Your task to perform on an android device: Find coffee shops on Maps Image 0: 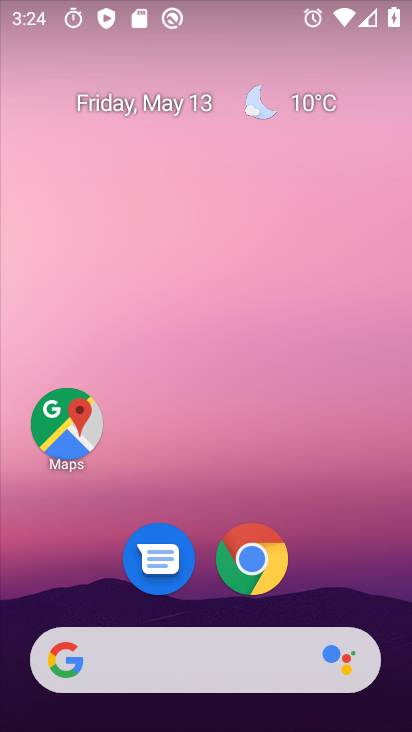
Step 0: click (59, 421)
Your task to perform on an android device: Find coffee shops on Maps Image 1: 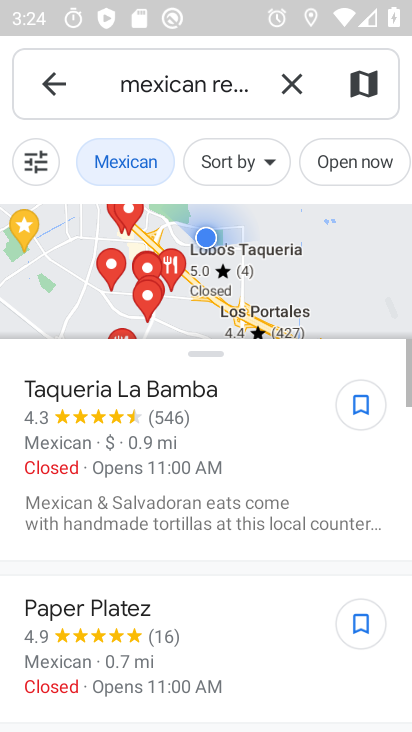
Step 1: click (290, 87)
Your task to perform on an android device: Find coffee shops on Maps Image 2: 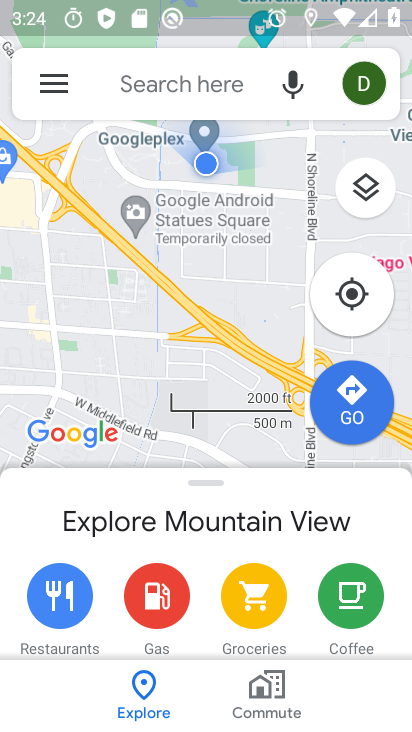
Step 2: click (172, 78)
Your task to perform on an android device: Find coffee shops on Maps Image 3: 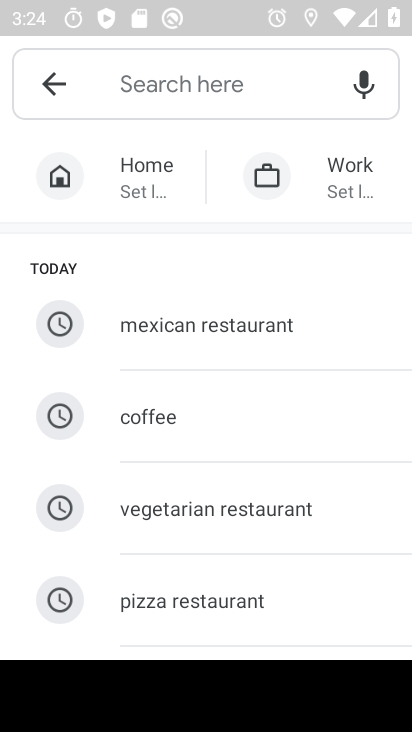
Step 3: type "coffee shops"
Your task to perform on an android device: Find coffee shops on Maps Image 4: 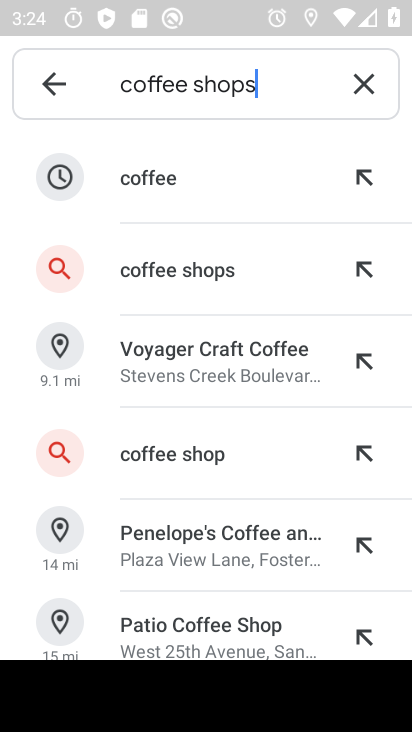
Step 4: click (229, 283)
Your task to perform on an android device: Find coffee shops on Maps Image 5: 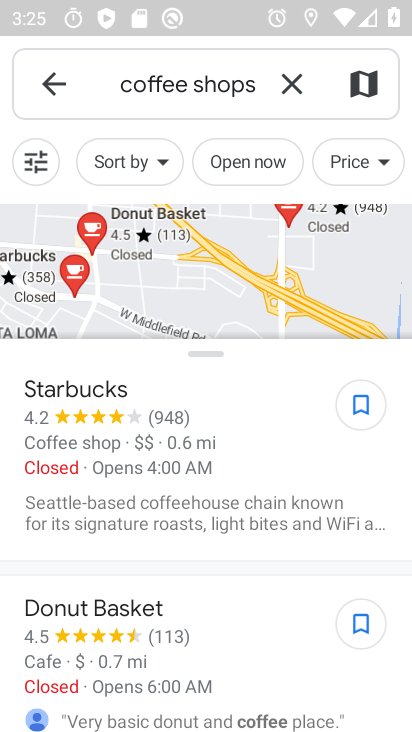
Step 5: task complete